Your task to perform on an android device: Open accessibility settings Image 0: 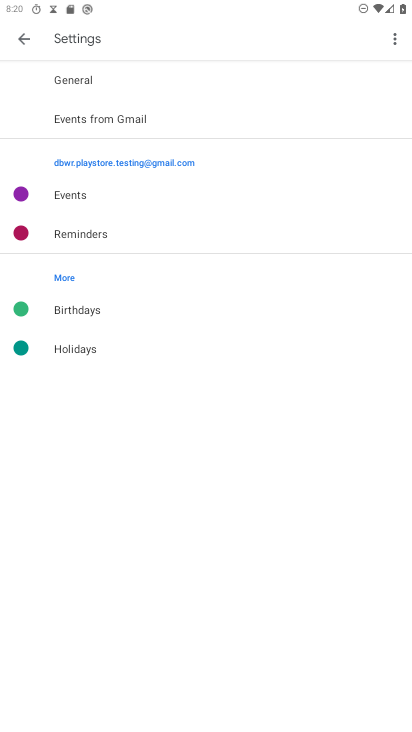
Step 0: press home button
Your task to perform on an android device: Open accessibility settings Image 1: 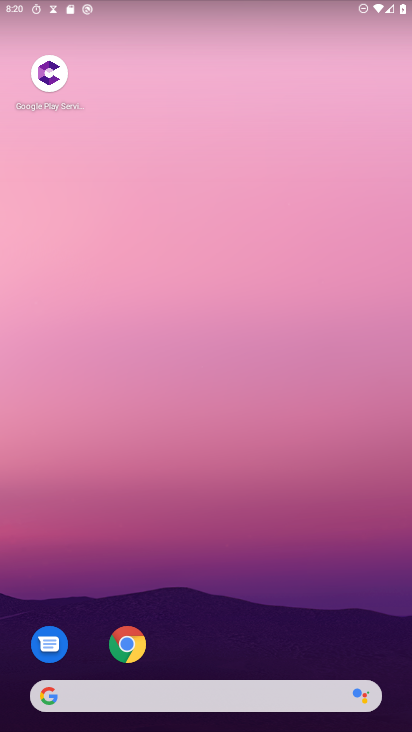
Step 1: drag from (196, 695) to (170, 354)
Your task to perform on an android device: Open accessibility settings Image 2: 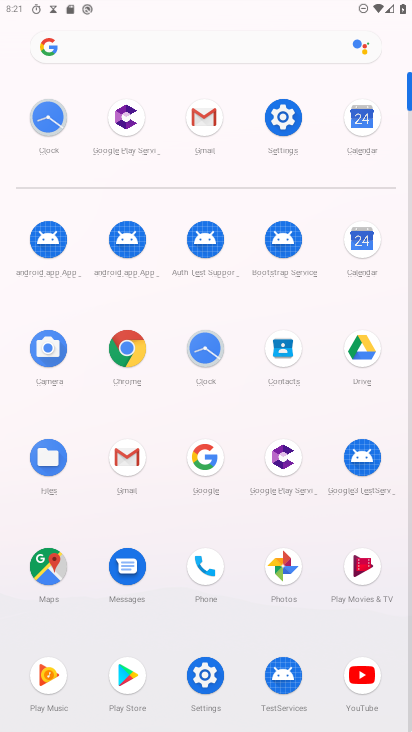
Step 2: click (196, 678)
Your task to perform on an android device: Open accessibility settings Image 3: 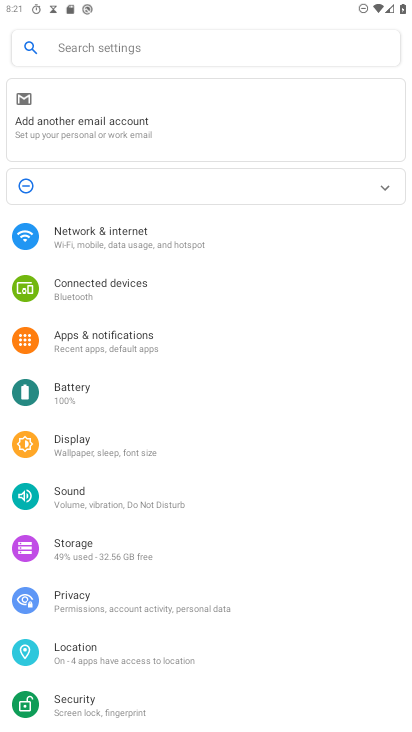
Step 3: drag from (150, 652) to (165, 307)
Your task to perform on an android device: Open accessibility settings Image 4: 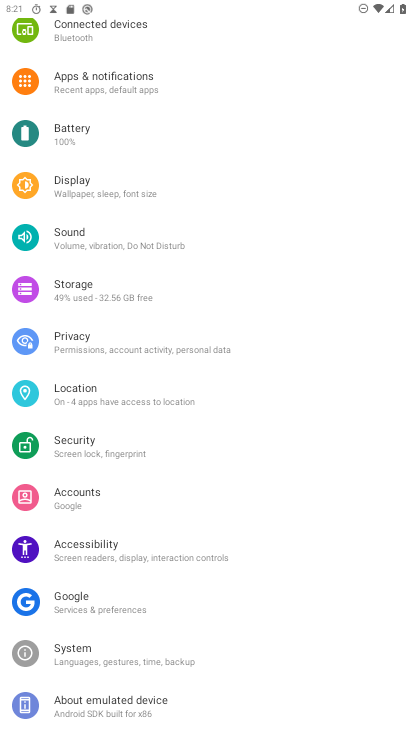
Step 4: click (112, 556)
Your task to perform on an android device: Open accessibility settings Image 5: 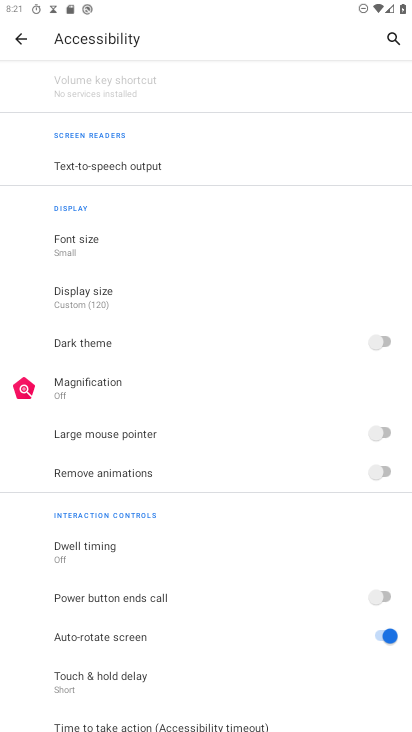
Step 5: task complete